Your task to perform on an android device: Go to Maps Image 0: 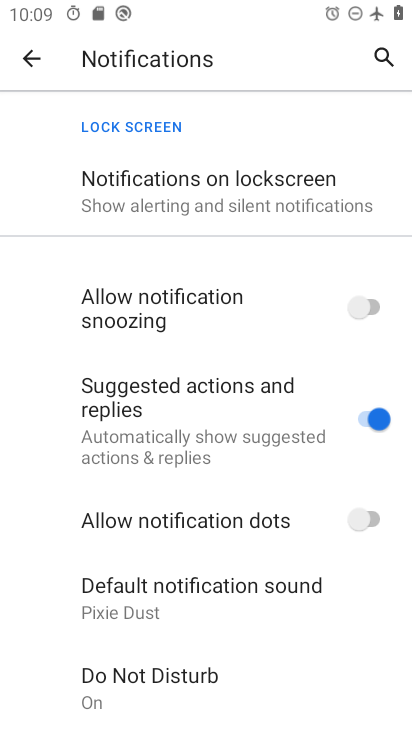
Step 0: press home button
Your task to perform on an android device: Go to Maps Image 1: 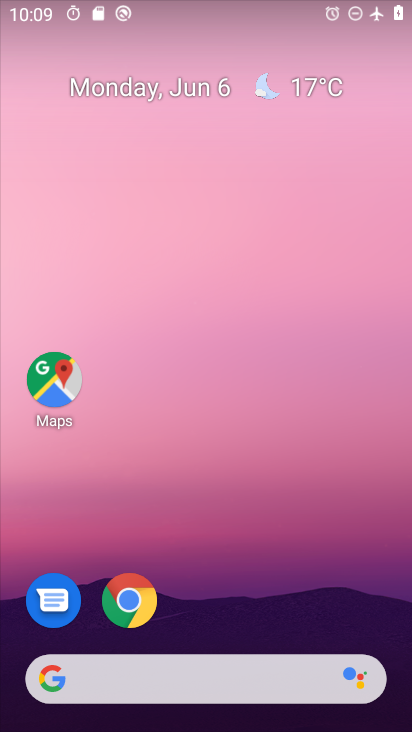
Step 1: click (65, 386)
Your task to perform on an android device: Go to Maps Image 2: 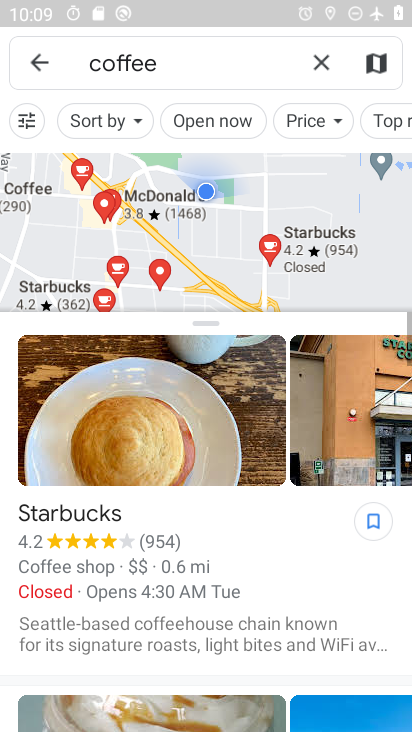
Step 2: task complete